Your task to perform on an android device: Open calendar and show me the second week of next month Image 0: 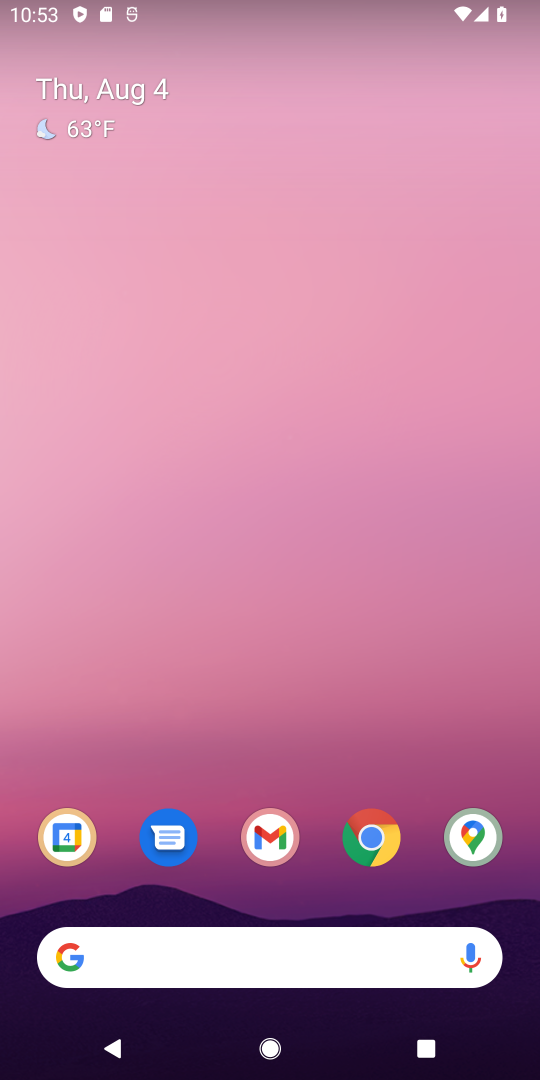
Step 0: drag from (328, 786) to (322, 23)
Your task to perform on an android device: Open calendar and show me the second week of next month Image 1: 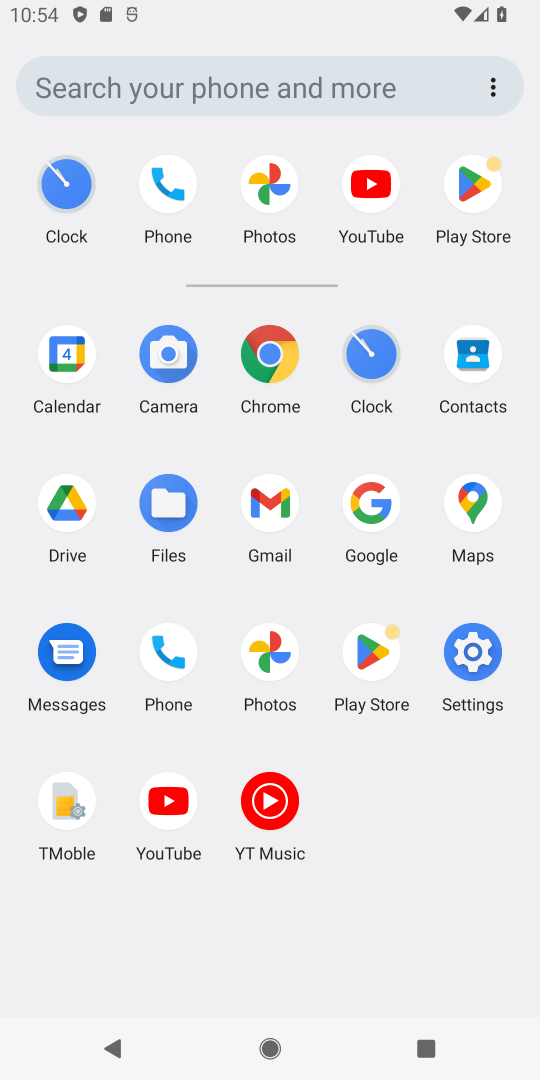
Step 1: click (56, 355)
Your task to perform on an android device: Open calendar and show me the second week of next month Image 2: 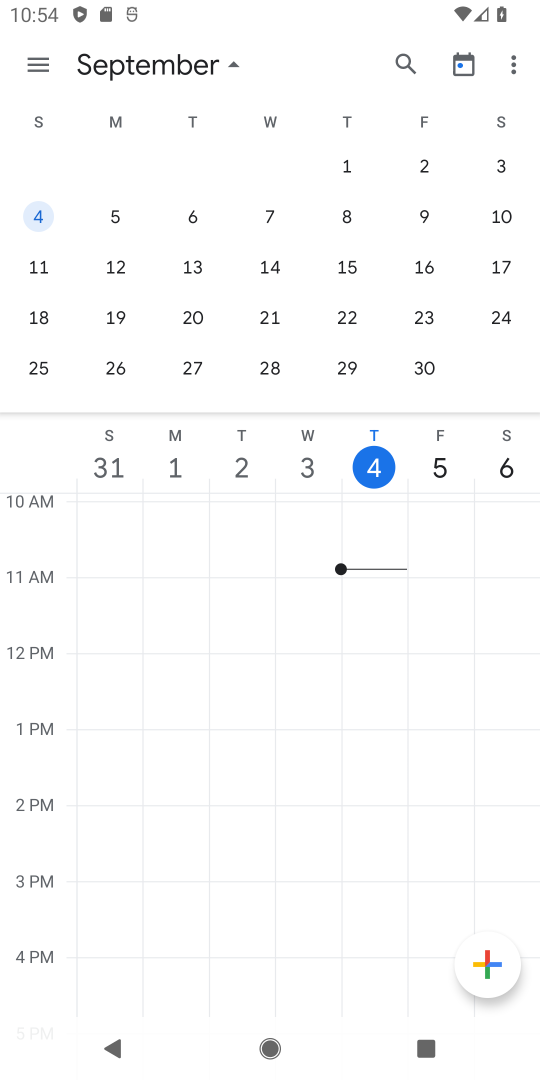
Step 2: click (32, 285)
Your task to perform on an android device: Open calendar and show me the second week of next month Image 3: 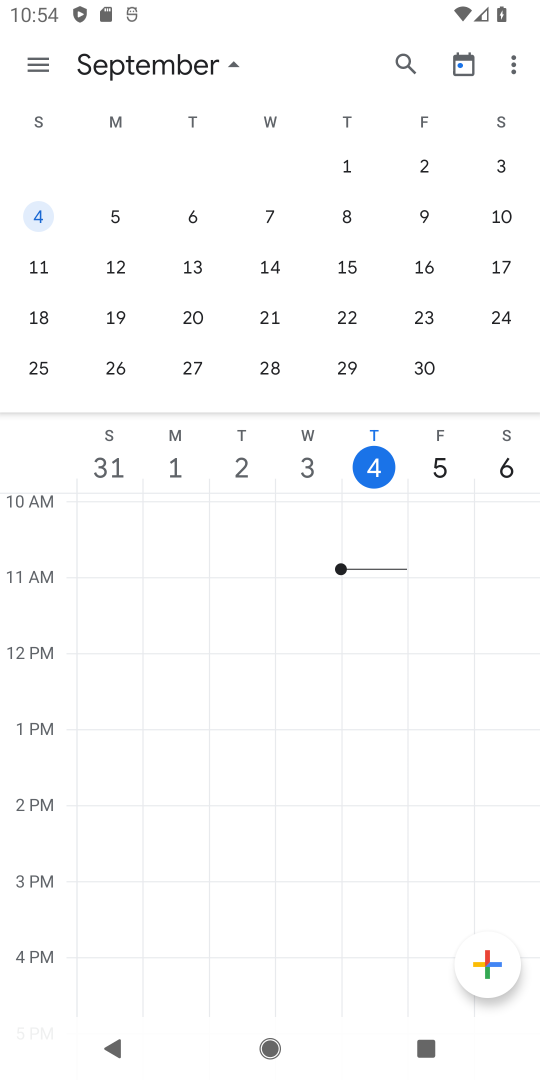
Step 3: drag from (492, 457) to (113, 488)
Your task to perform on an android device: Open calendar and show me the second week of next month Image 4: 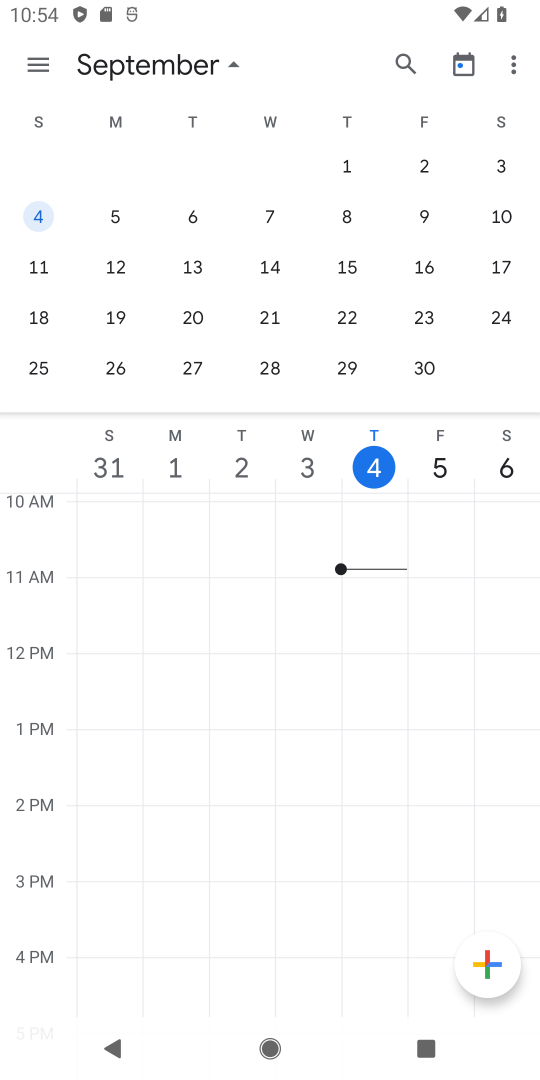
Step 4: click (37, 216)
Your task to perform on an android device: Open calendar and show me the second week of next month Image 5: 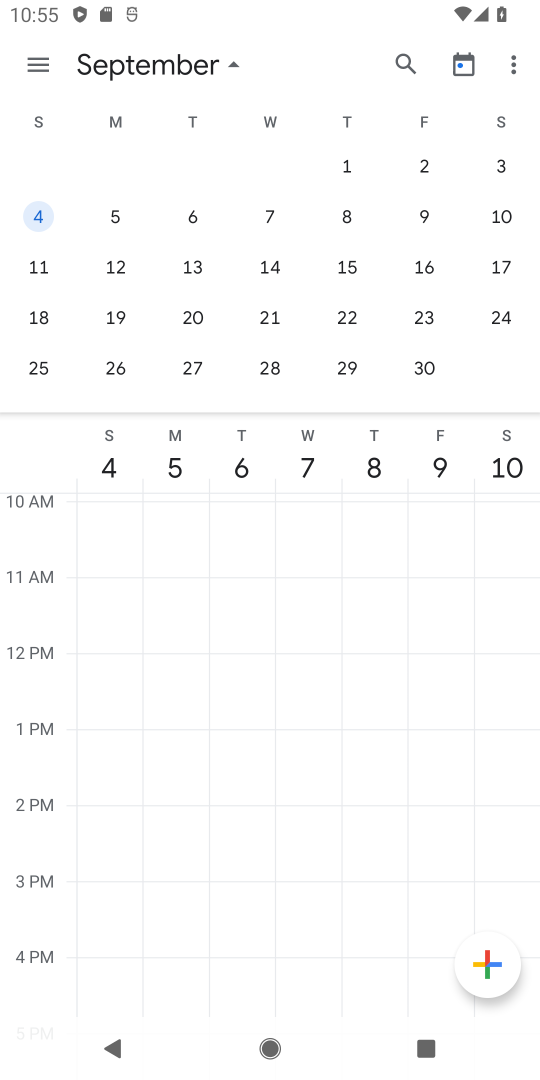
Step 5: click (231, 63)
Your task to perform on an android device: Open calendar and show me the second week of next month Image 6: 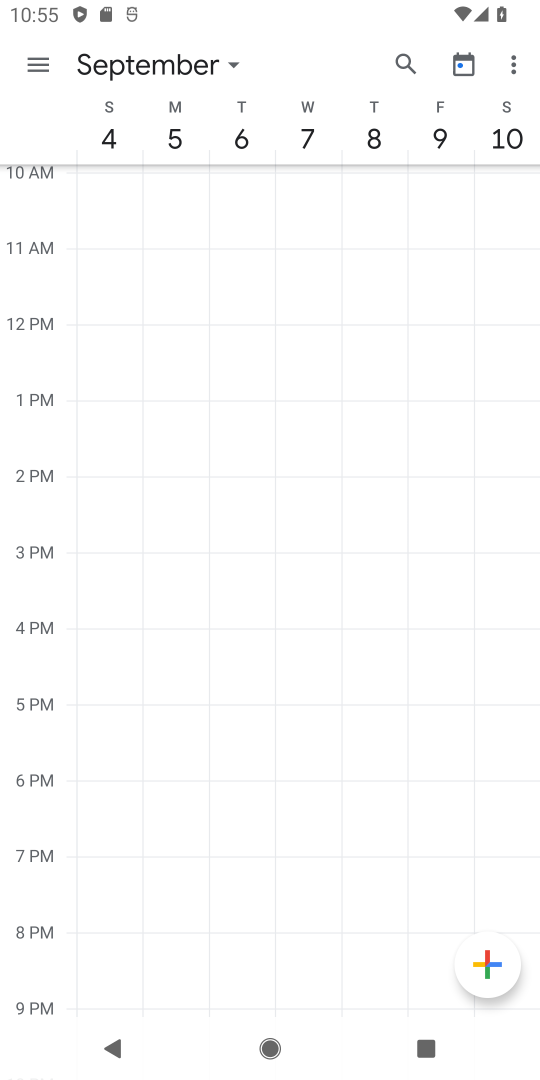
Step 6: task complete